Your task to perform on an android device: Check the weather Image 0: 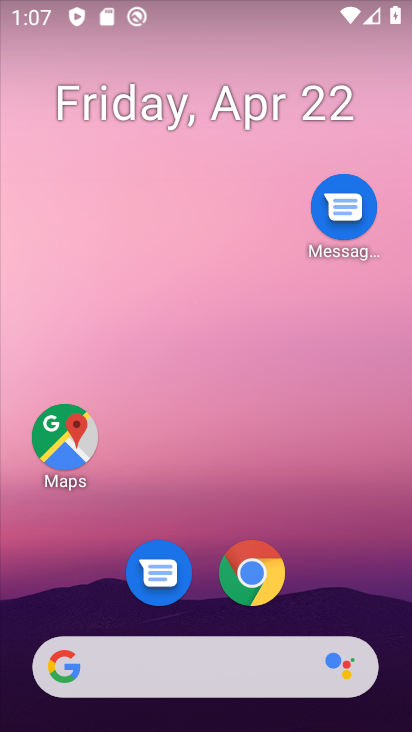
Step 0: drag from (300, 304) to (281, 189)
Your task to perform on an android device: Check the weather Image 1: 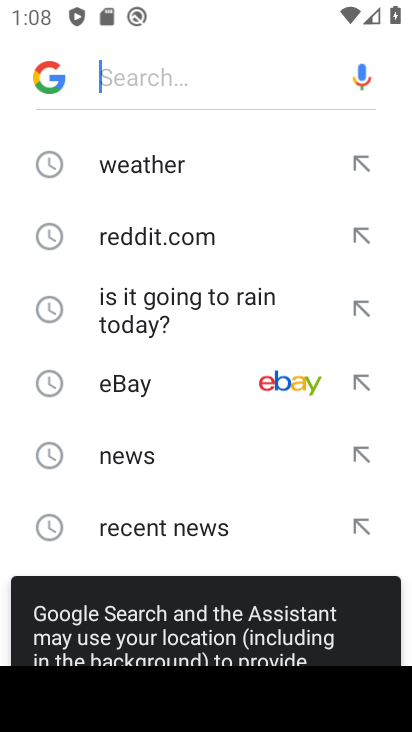
Step 1: task complete